Your task to perform on an android device: open app "YouTube Kids" (install if not already installed) and enter user name: "atmospheric@gmail.com" and password: "raze" Image 0: 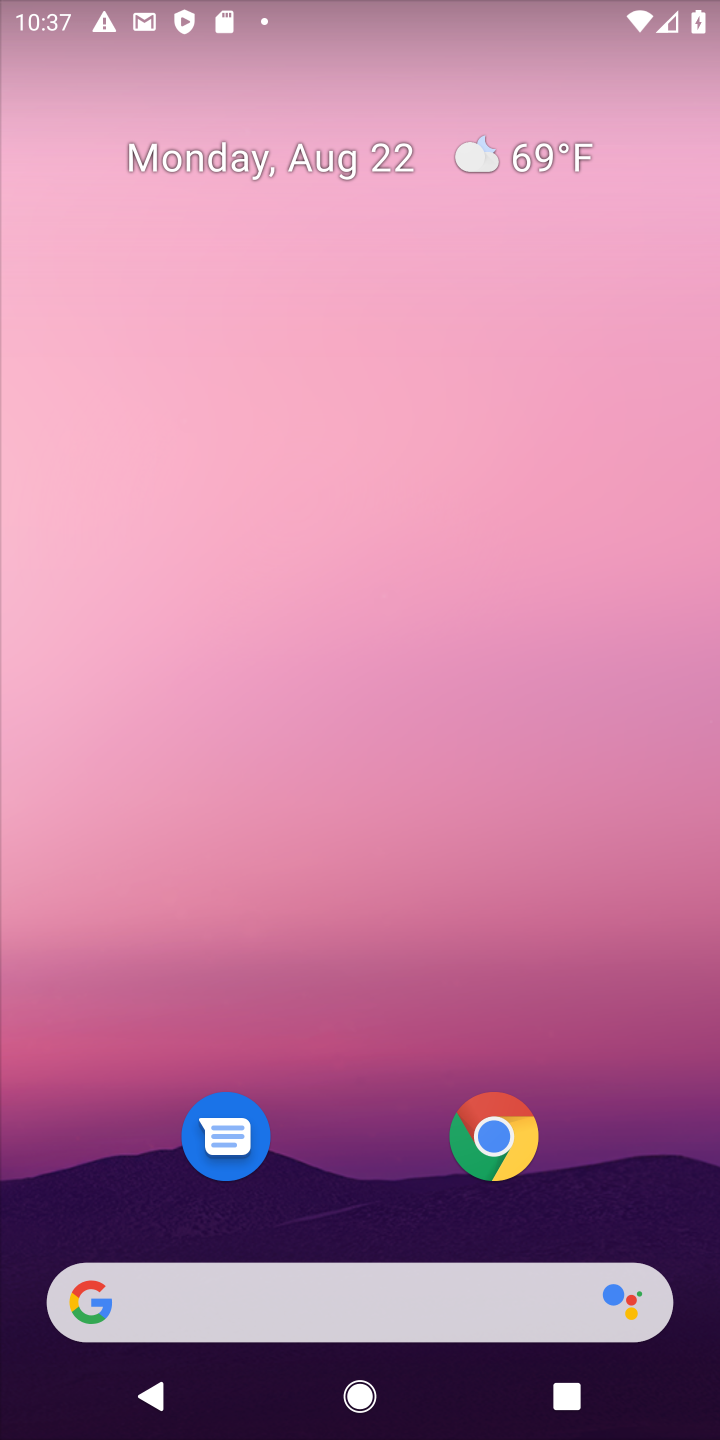
Step 0: drag from (396, 1279) to (341, 383)
Your task to perform on an android device: open app "YouTube Kids" (install if not already installed) and enter user name: "atmospheric@gmail.com" and password: "raze" Image 1: 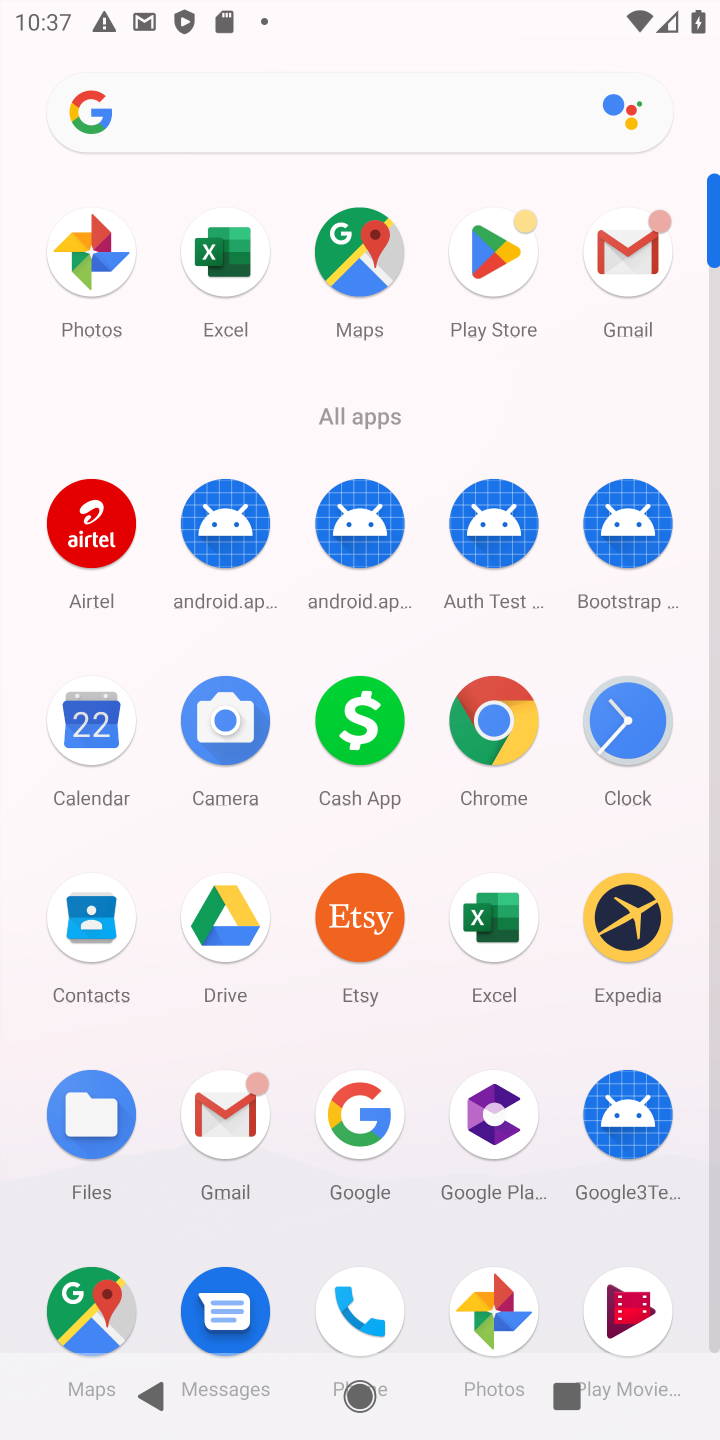
Step 1: drag from (414, 1267) to (421, 358)
Your task to perform on an android device: open app "YouTube Kids" (install if not already installed) and enter user name: "atmospheric@gmail.com" and password: "raze" Image 2: 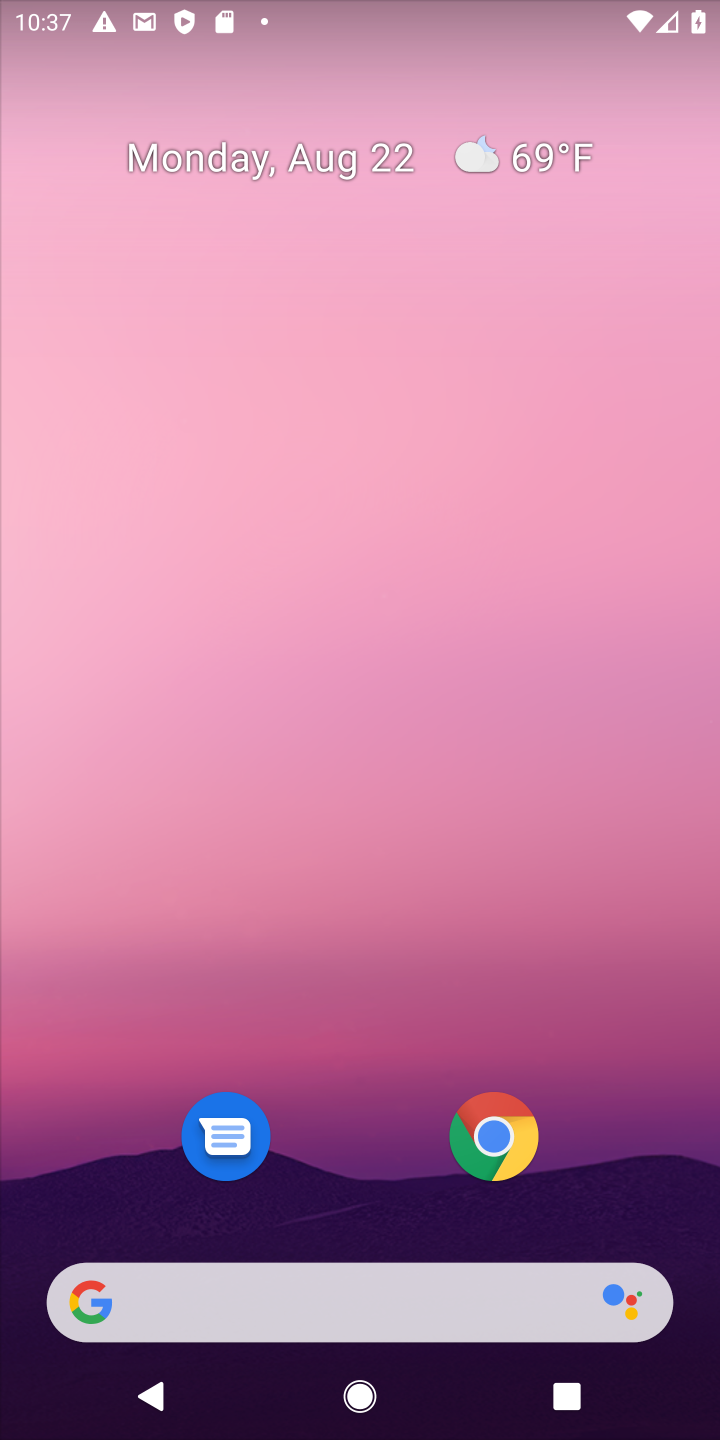
Step 2: drag from (340, 1353) to (353, 510)
Your task to perform on an android device: open app "YouTube Kids" (install if not already installed) and enter user name: "atmospheric@gmail.com" and password: "raze" Image 3: 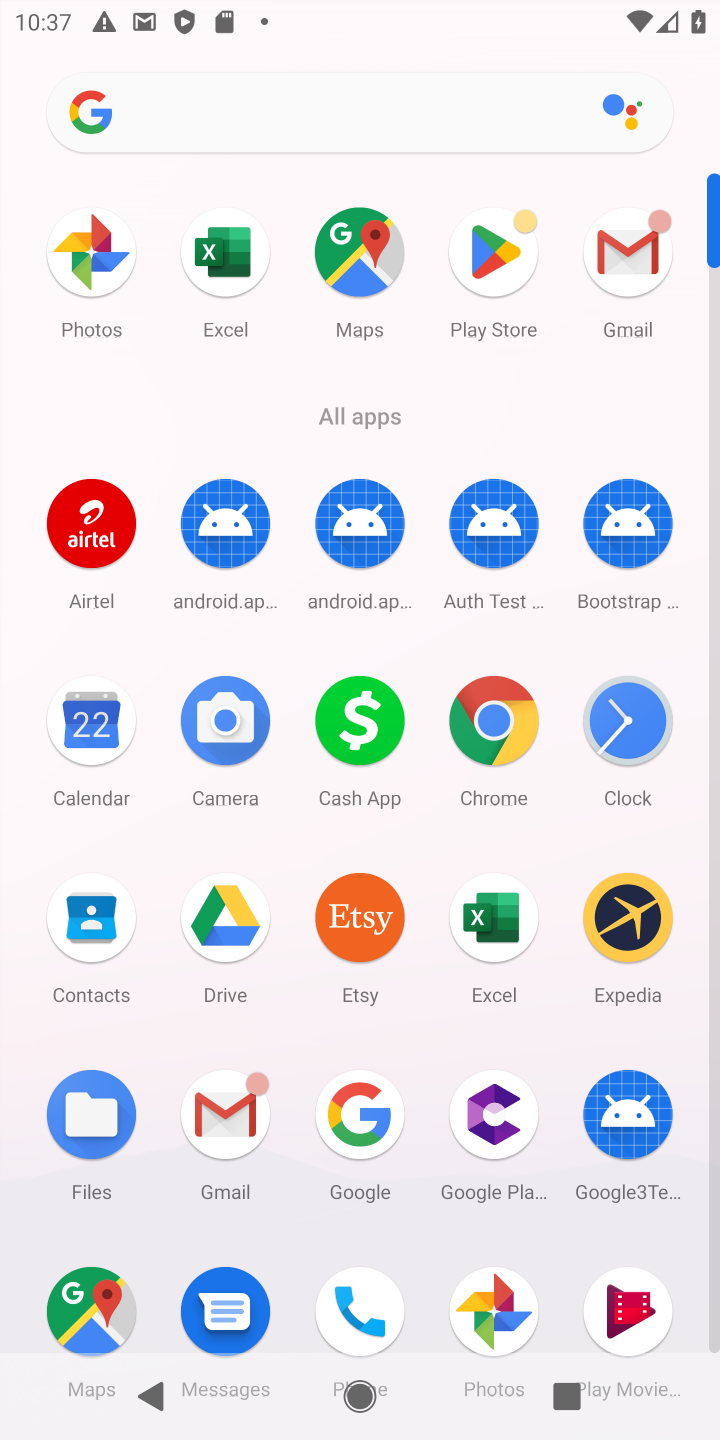
Step 3: click (503, 235)
Your task to perform on an android device: open app "YouTube Kids" (install if not already installed) and enter user name: "atmospheric@gmail.com" and password: "raze" Image 4: 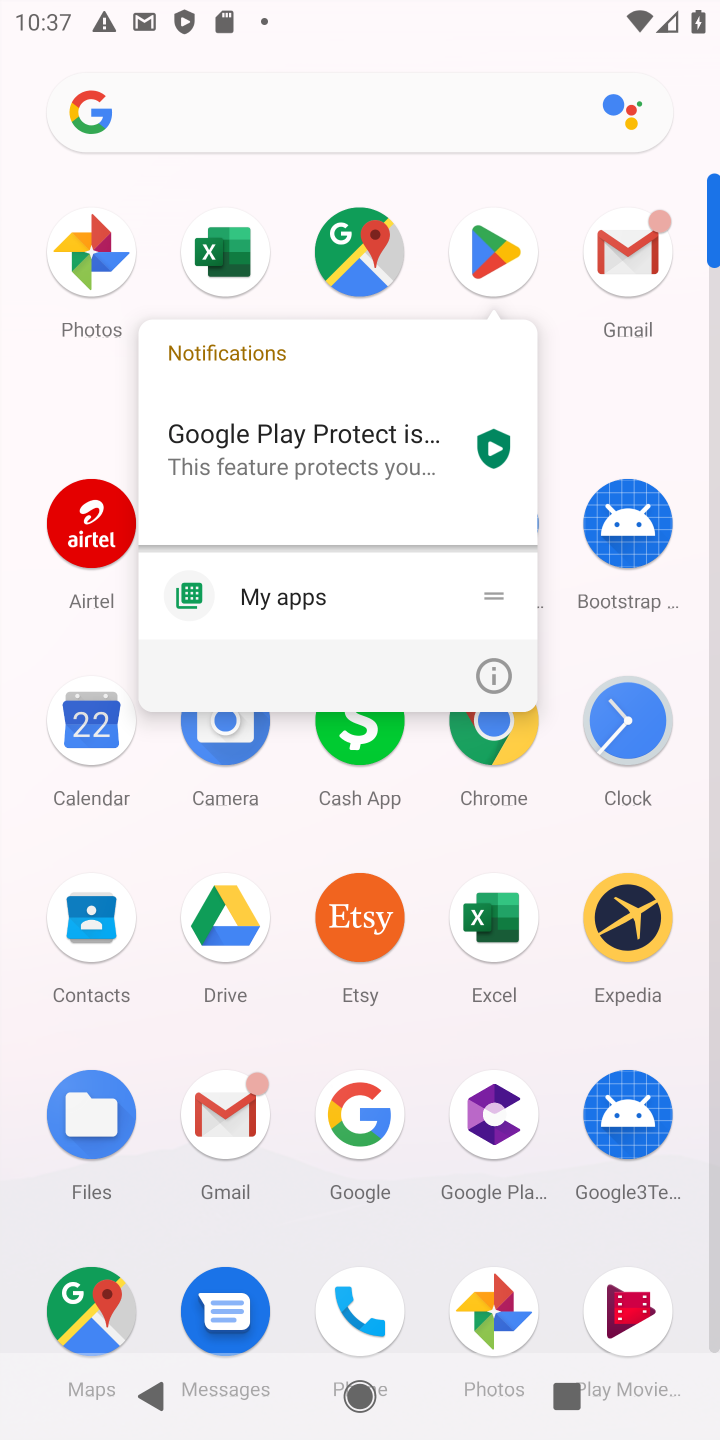
Step 4: click (507, 250)
Your task to perform on an android device: open app "YouTube Kids" (install if not already installed) and enter user name: "atmospheric@gmail.com" and password: "raze" Image 5: 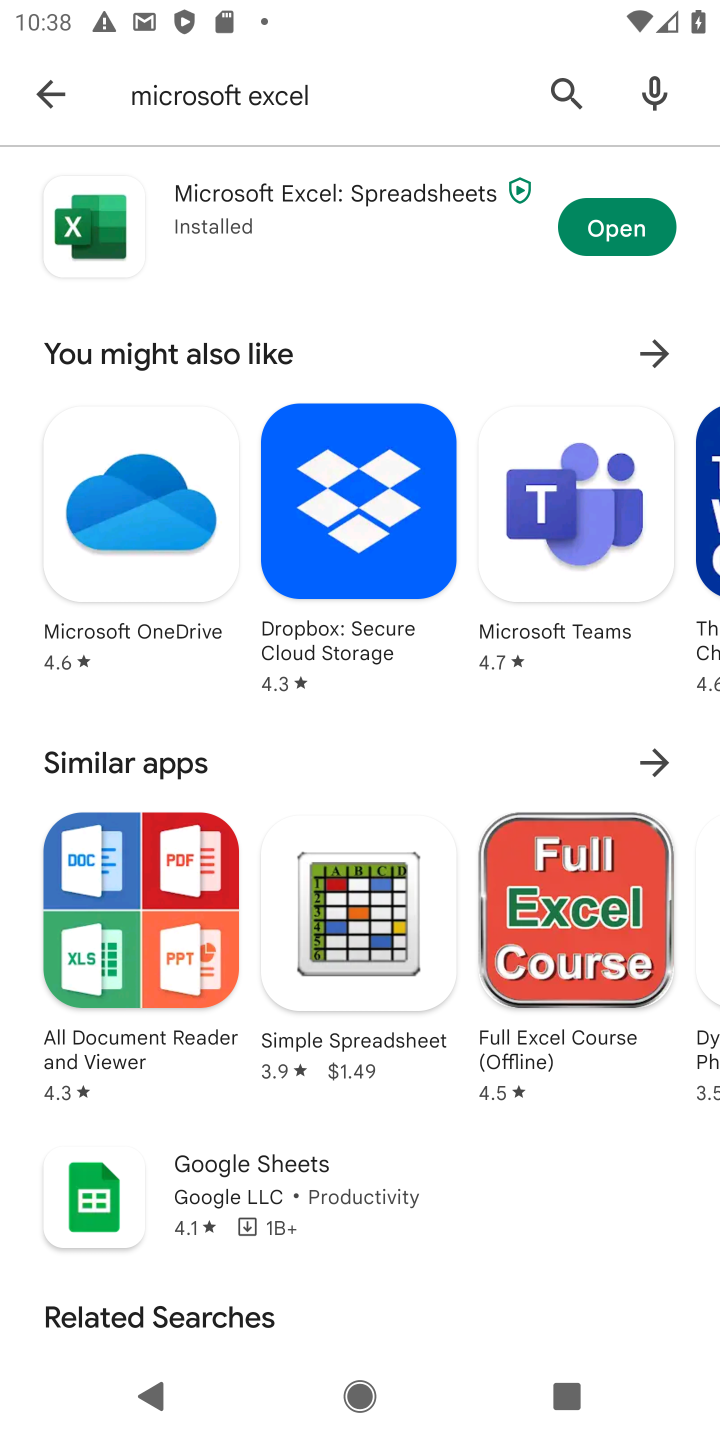
Step 5: click (552, 103)
Your task to perform on an android device: open app "YouTube Kids" (install if not already installed) and enter user name: "atmospheric@gmail.com" and password: "raze" Image 6: 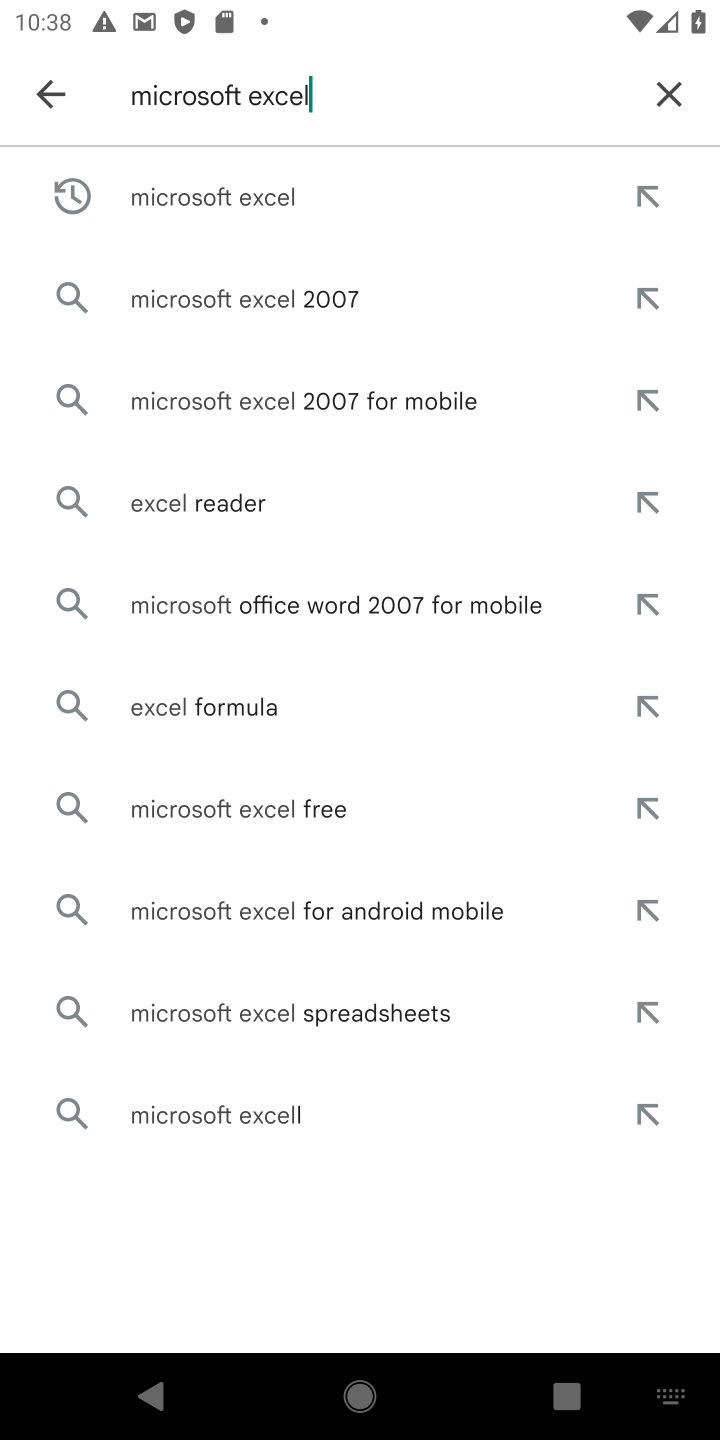
Step 6: click (656, 95)
Your task to perform on an android device: open app "YouTube Kids" (install if not already installed) and enter user name: "atmospheric@gmail.com" and password: "raze" Image 7: 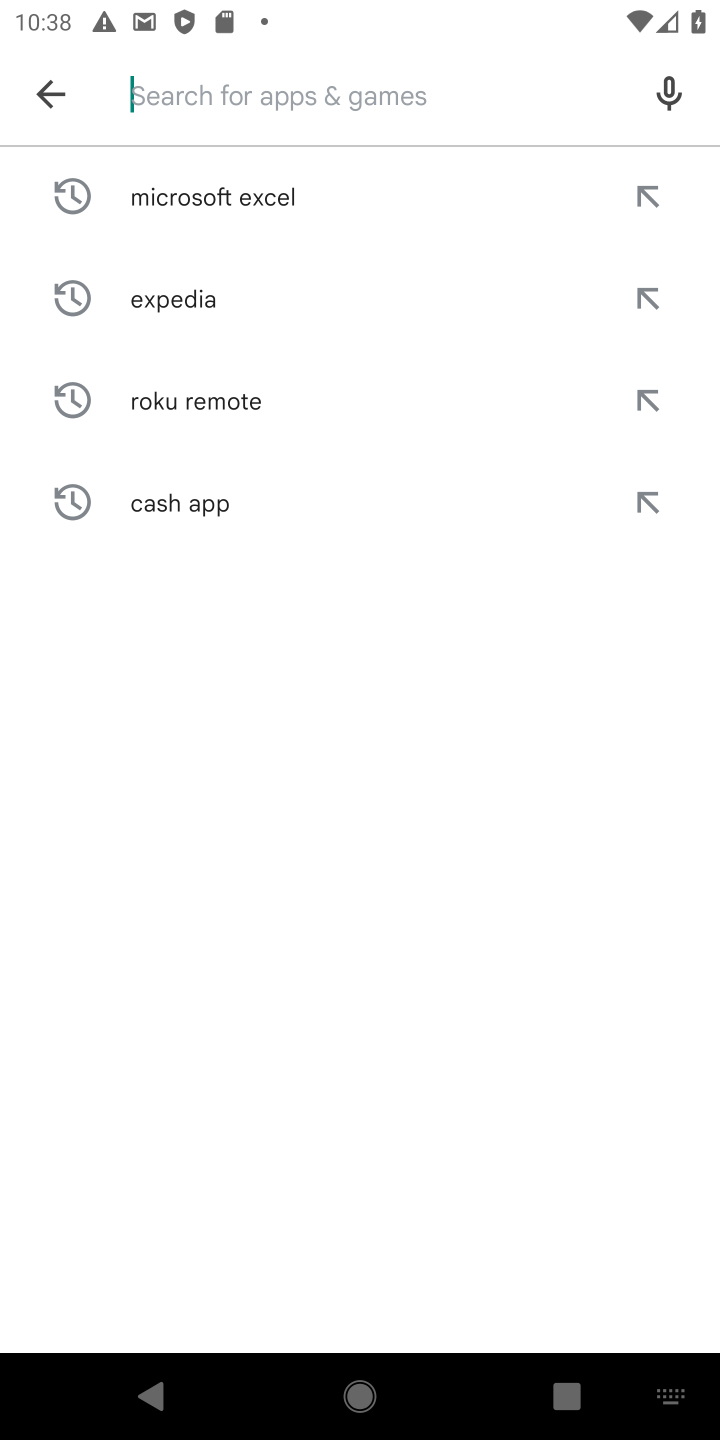
Step 7: type "youtube kids"
Your task to perform on an android device: open app "YouTube Kids" (install if not already installed) and enter user name: "atmospheric@gmail.com" and password: "raze" Image 8: 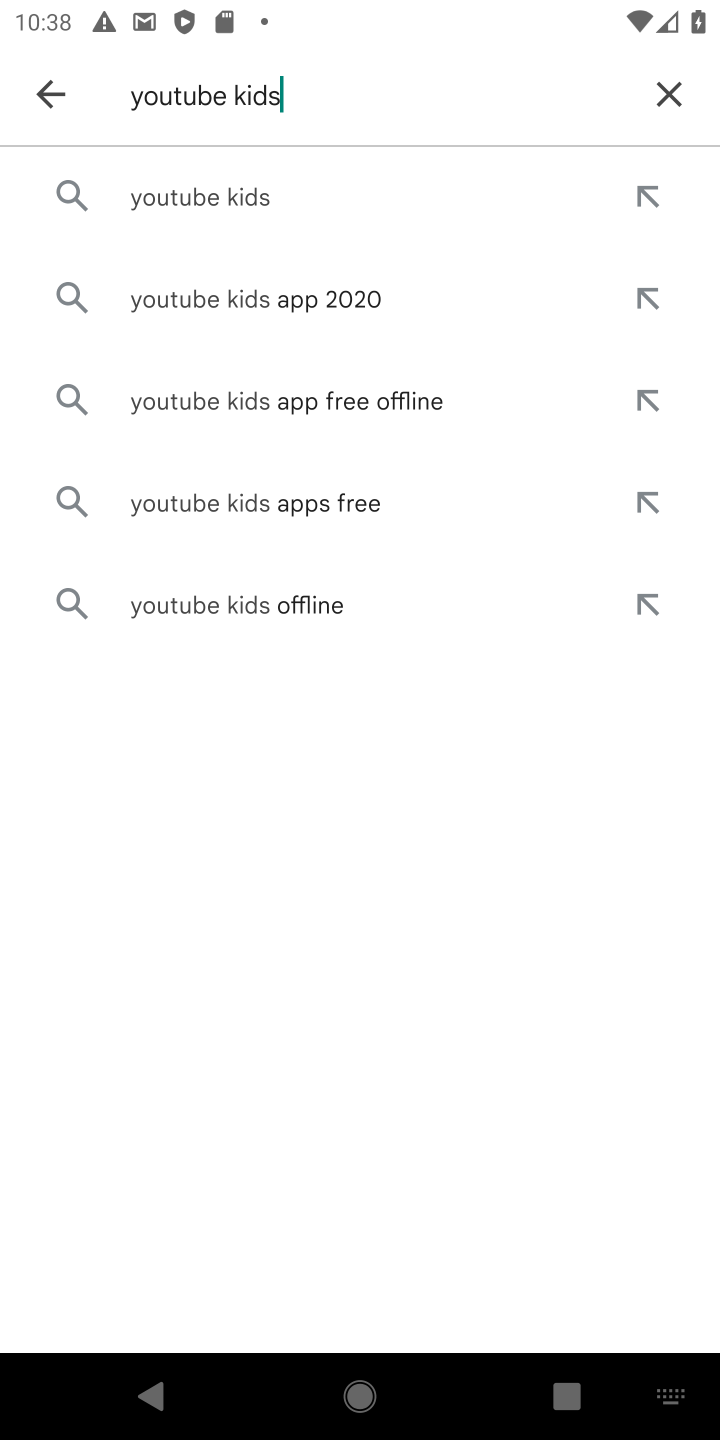
Step 8: click (325, 188)
Your task to perform on an android device: open app "YouTube Kids" (install if not already installed) and enter user name: "atmospheric@gmail.com" and password: "raze" Image 9: 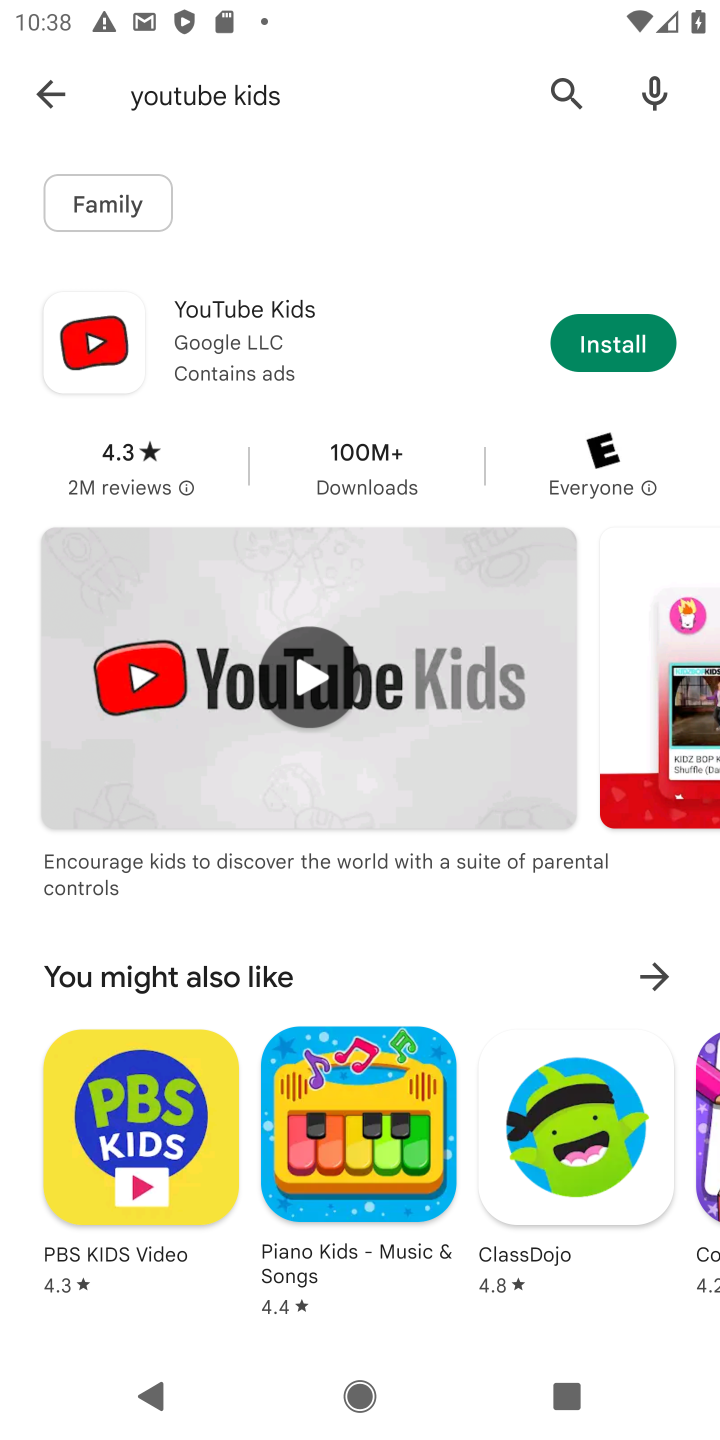
Step 9: click (595, 348)
Your task to perform on an android device: open app "YouTube Kids" (install if not already installed) and enter user name: "atmospheric@gmail.com" and password: "raze" Image 10: 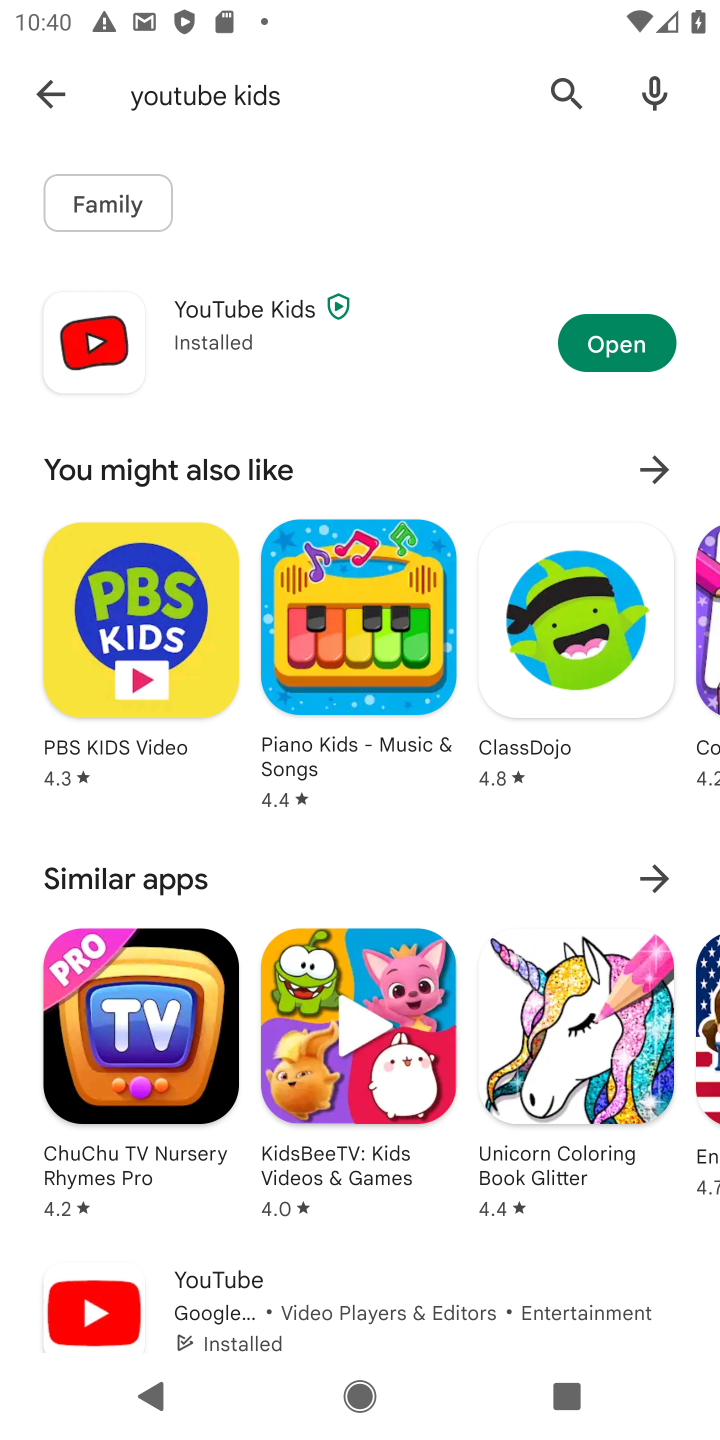
Step 10: click (611, 355)
Your task to perform on an android device: open app "YouTube Kids" (install if not already installed) and enter user name: "atmospheric@gmail.com" and password: "raze" Image 11: 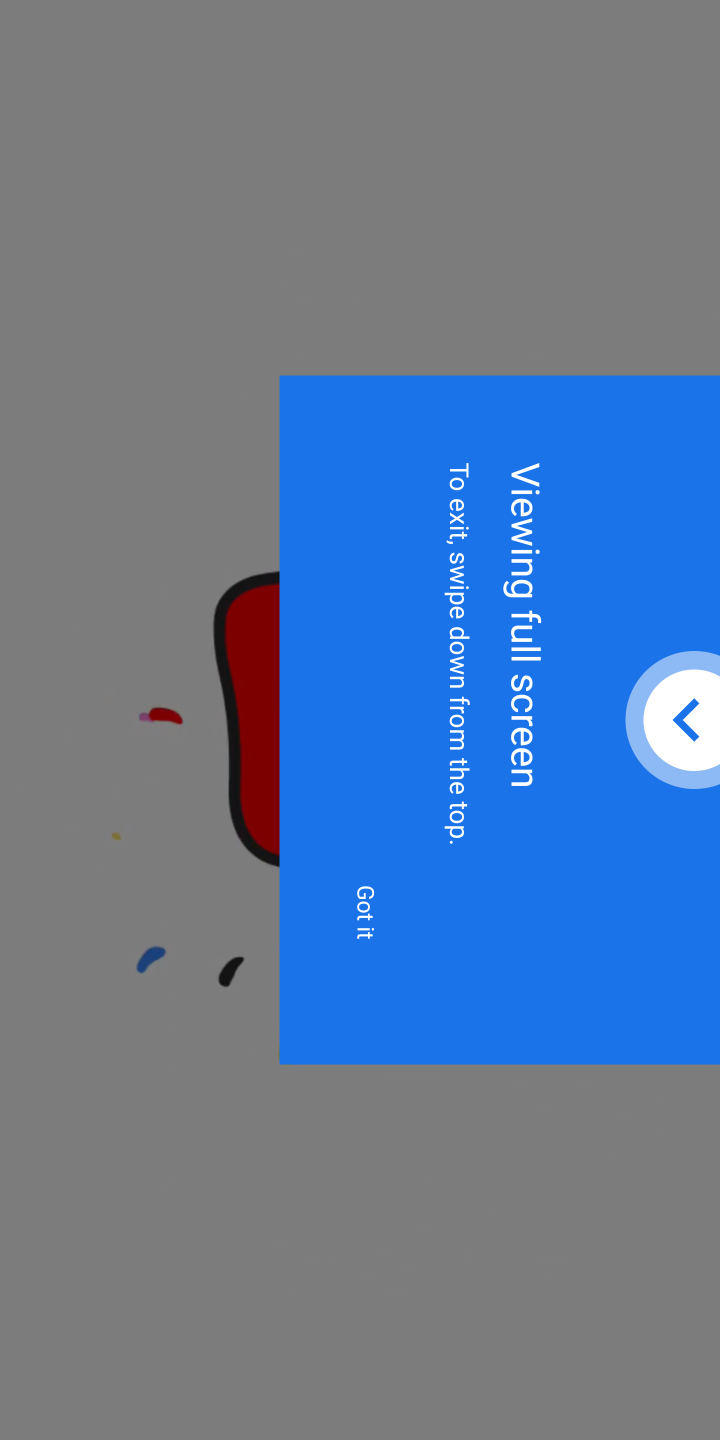
Step 11: click (347, 915)
Your task to perform on an android device: open app "YouTube Kids" (install if not already installed) and enter user name: "atmospheric@gmail.com" and password: "raze" Image 12: 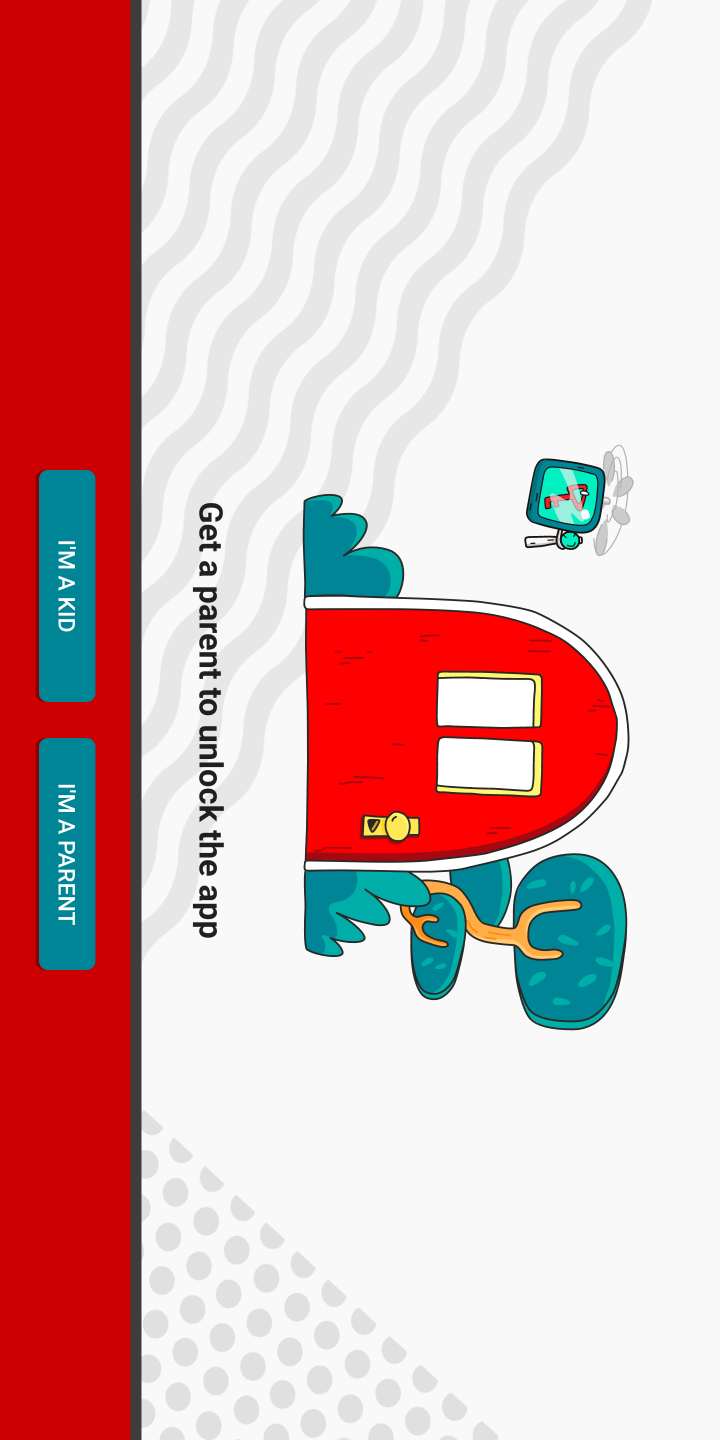
Step 12: click (89, 646)
Your task to perform on an android device: open app "YouTube Kids" (install if not already installed) and enter user name: "atmospheric@gmail.com" and password: "raze" Image 13: 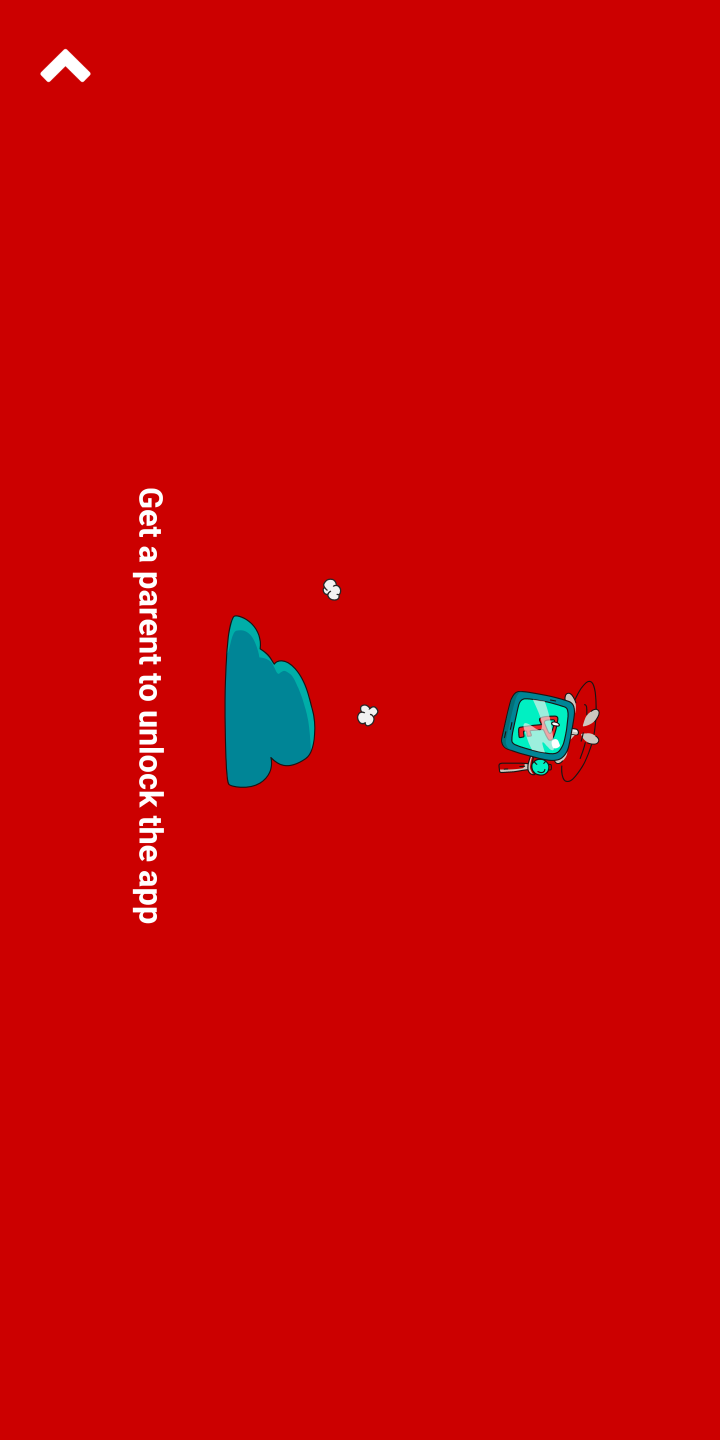
Step 13: click (54, 87)
Your task to perform on an android device: open app "YouTube Kids" (install if not already installed) and enter user name: "atmospheric@gmail.com" and password: "raze" Image 14: 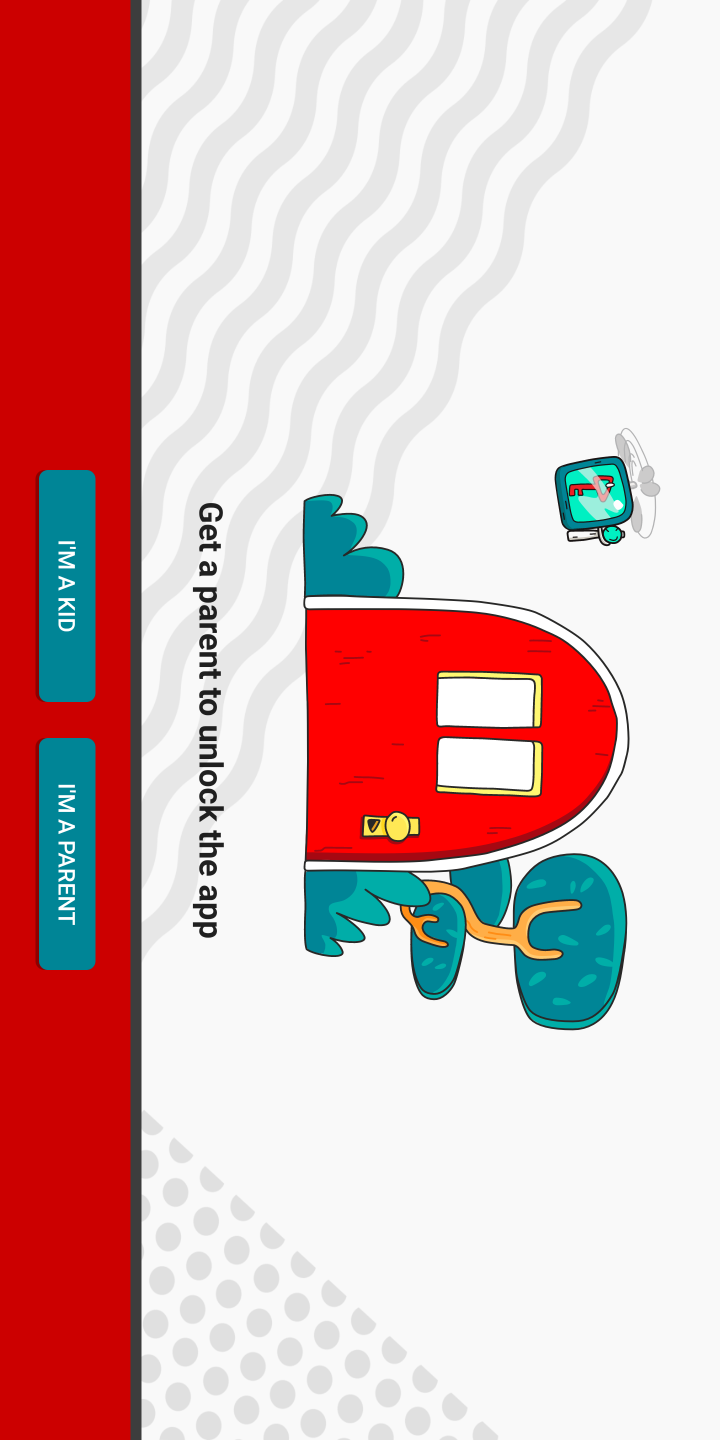
Step 14: task complete